Your task to perform on an android device: Open Yahoo.com Image 0: 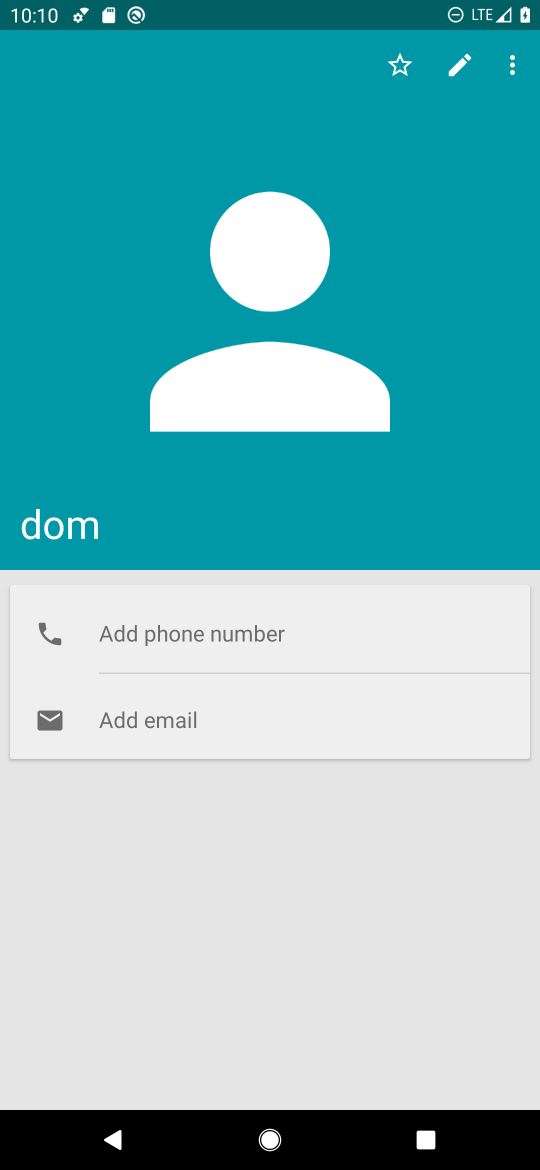
Step 0: press home button
Your task to perform on an android device: Open Yahoo.com Image 1: 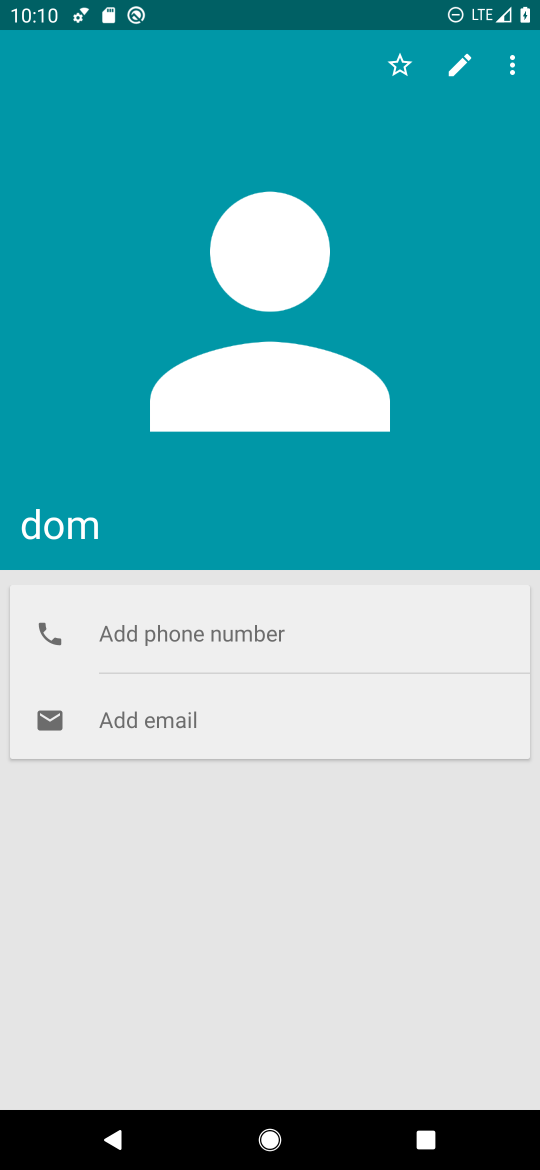
Step 1: press home button
Your task to perform on an android device: Open Yahoo.com Image 2: 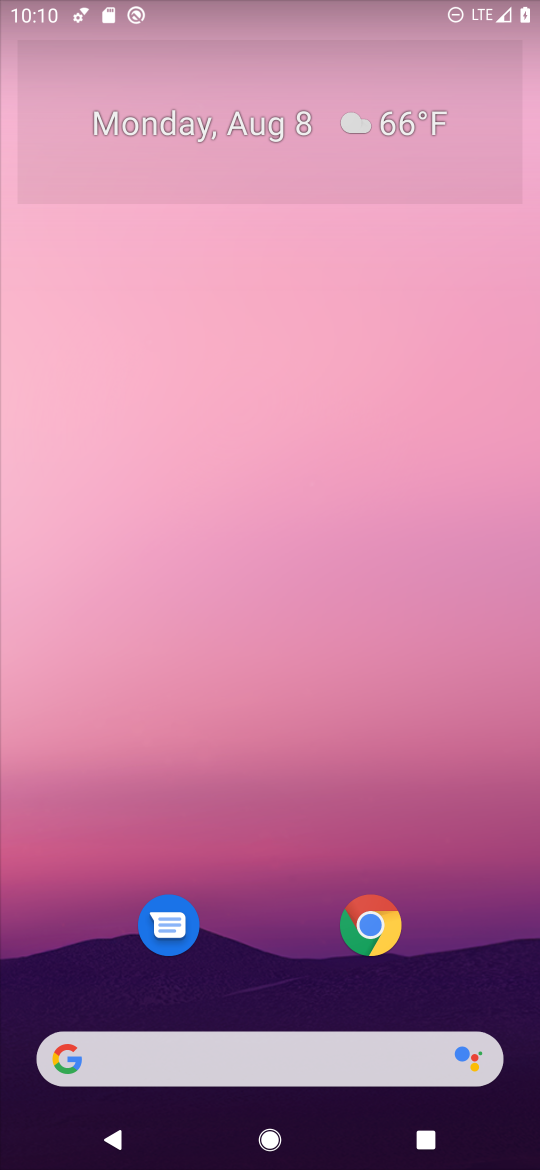
Step 2: press home button
Your task to perform on an android device: Open Yahoo.com Image 3: 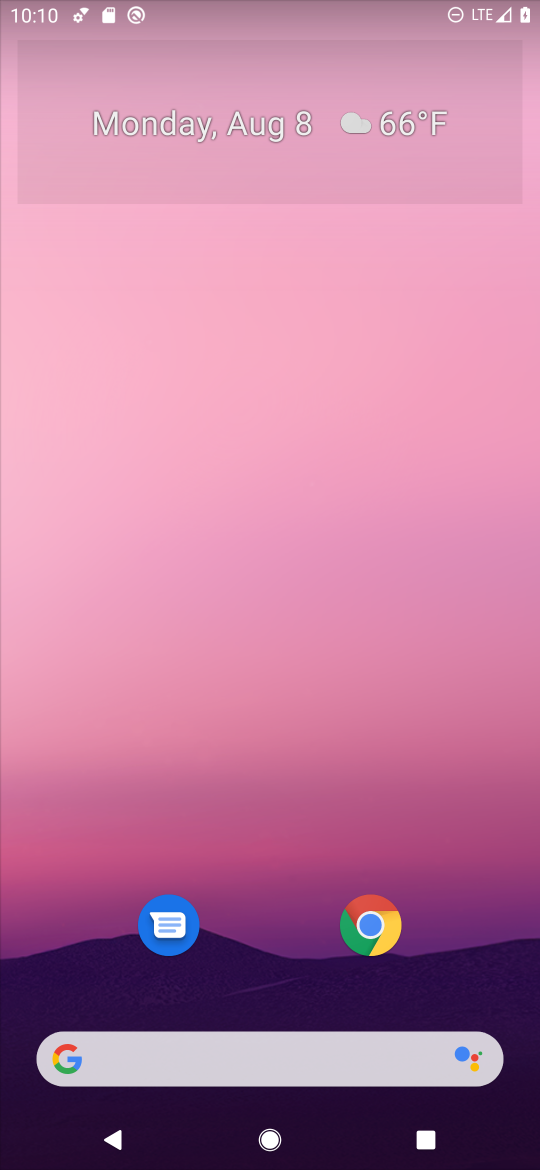
Step 3: drag from (265, 922) to (220, 204)
Your task to perform on an android device: Open Yahoo.com Image 4: 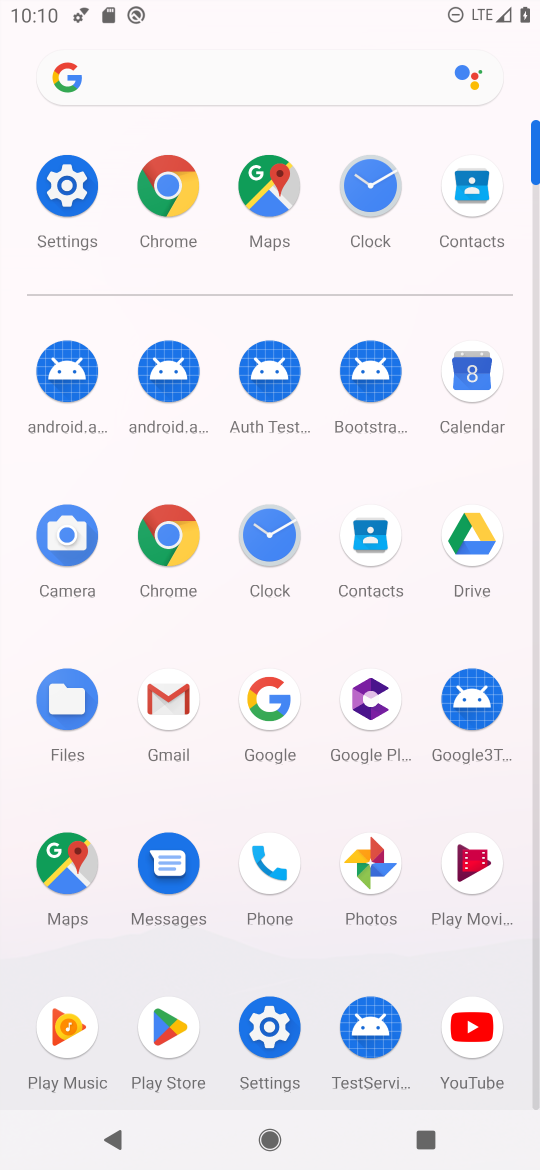
Step 4: click (163, 532)
Your task to perform on an android device: Open Yahoo.com Image 5: 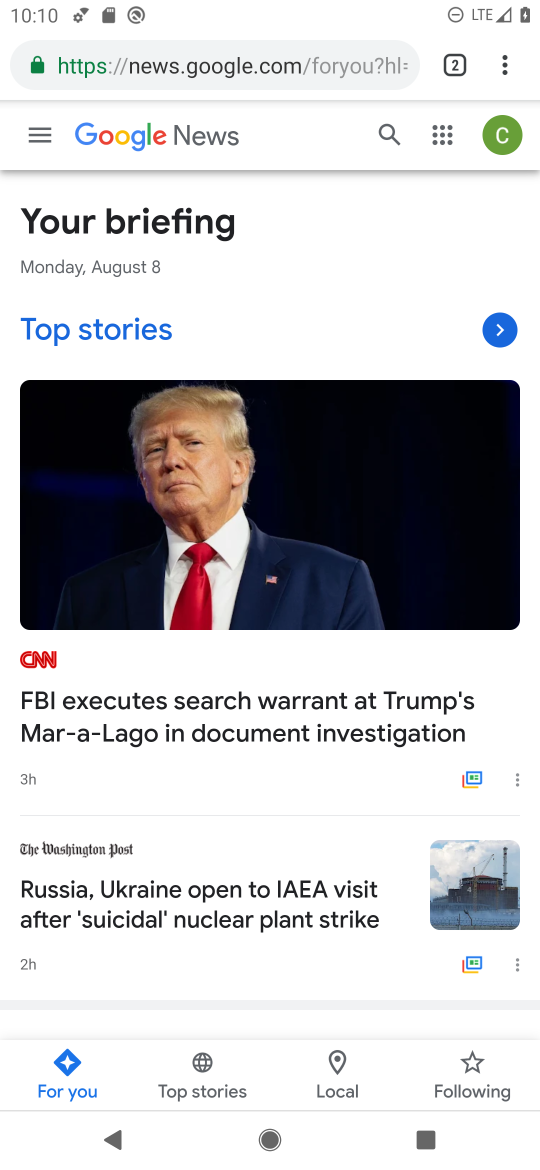
Step 5: click (272, 62)
Your task to perform on an android device: Open Yahoo.com Image 6: 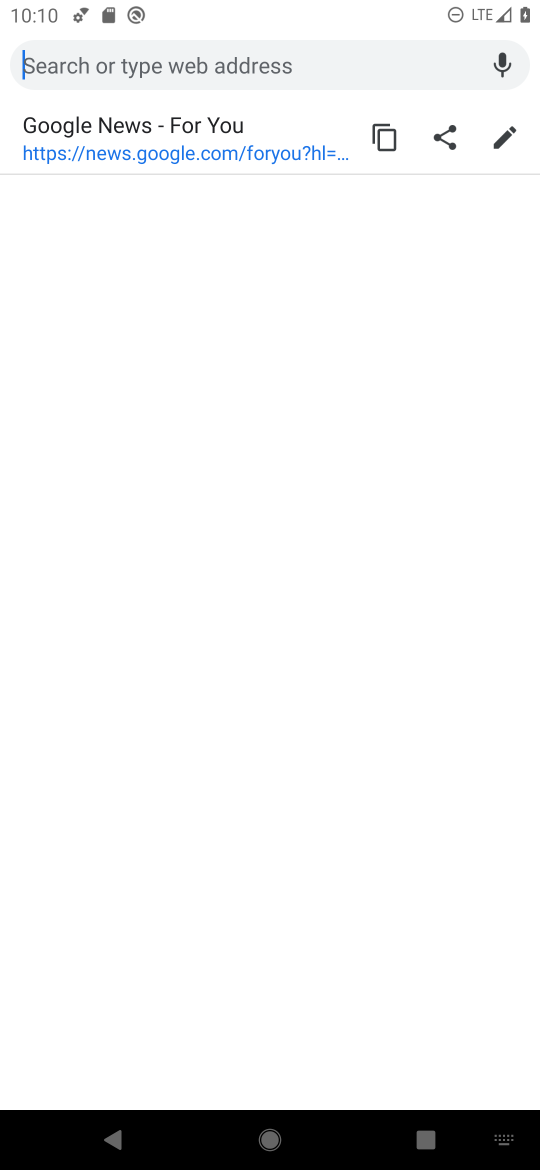
Step 6: type "yahoo.com"
Your task to perform on an android device: Open Yahoo.com Image 7: 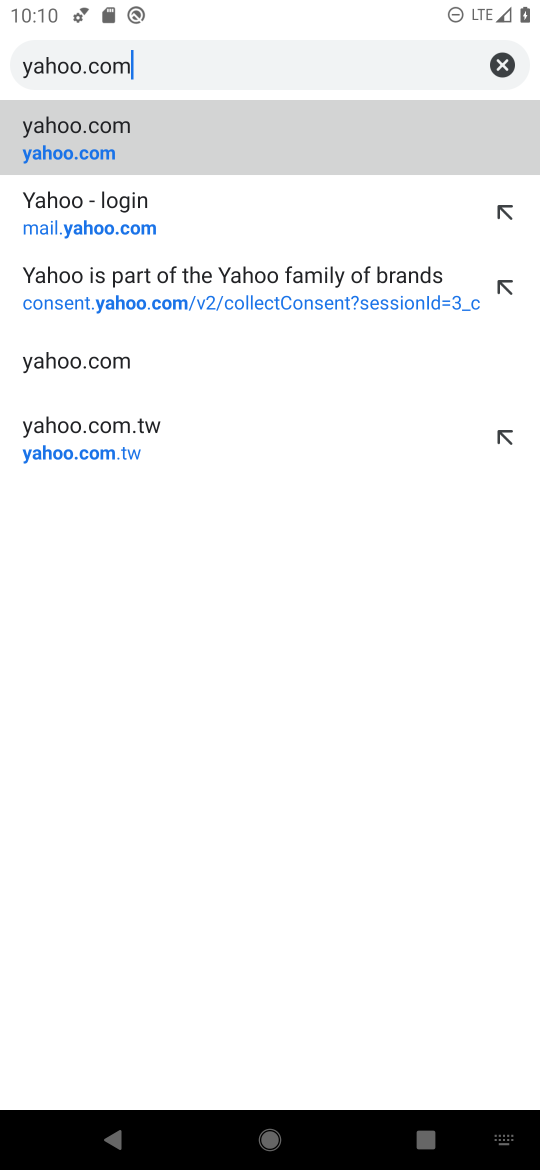
Step 7: click (104, 160)
Your task to perform on an android device: Open Yahoo.com Image 8: 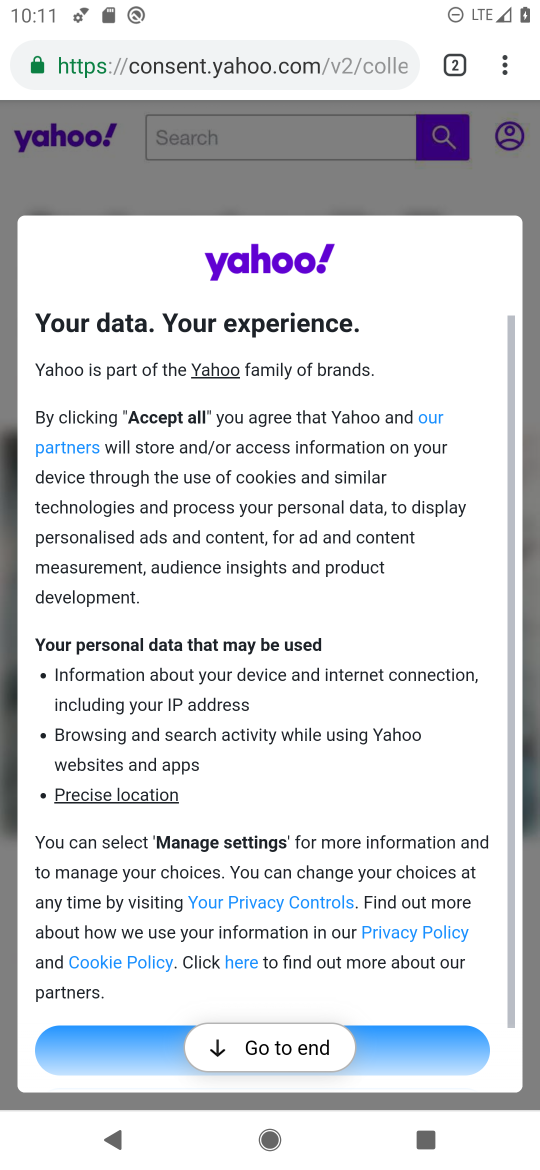
Step 8: task complete